Your task to perform on an android device: uninstall "DoorDash - Dasher" Image 0: 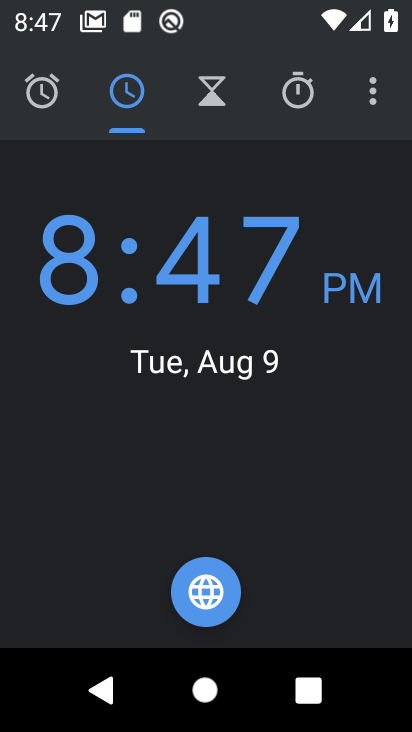
Step 0: press home button
Your task to perform on an android device: uninstall "DoorDash - Dasher" Image 1: 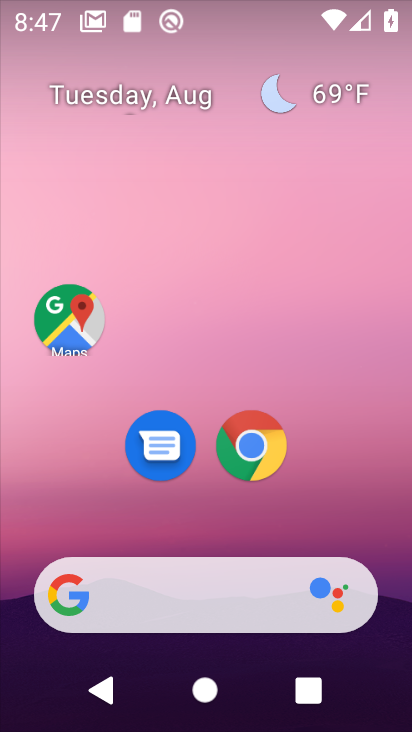
Step 1: drag from (183, 527) to (198, 23)
Your task to perform on an android device: uninstall "DoorDash - Dasher" Image 2: 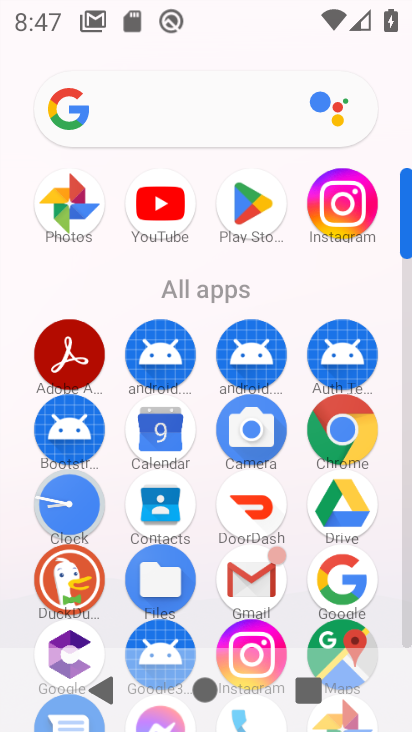
Step 2: drag from (117, 543) to (125, 113)
Your task to perform on an android device: uninstall "DoorDash - Dasher" Image 3: 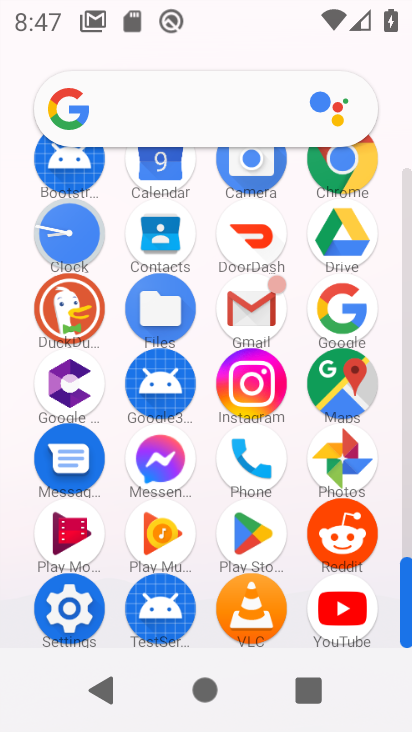
Step 3: click (254, 241)
Your task to perform on an android device: uninstall "DoorDash - Dasher" Image 4: 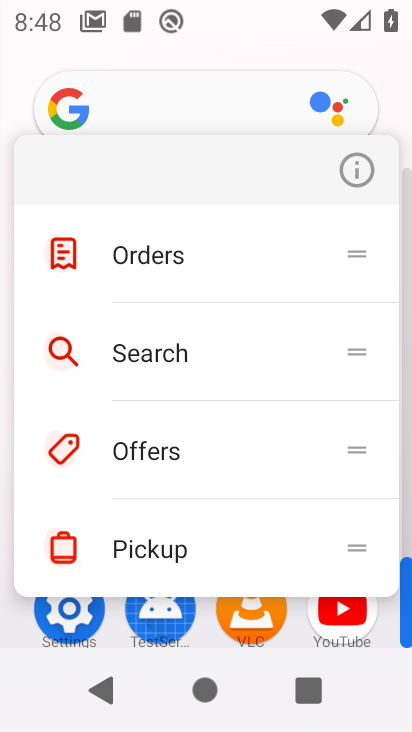
Step 4: click (351, 172)
Your task to perform on an android device: uninstall "DoorDash - Dasher" Image 5: 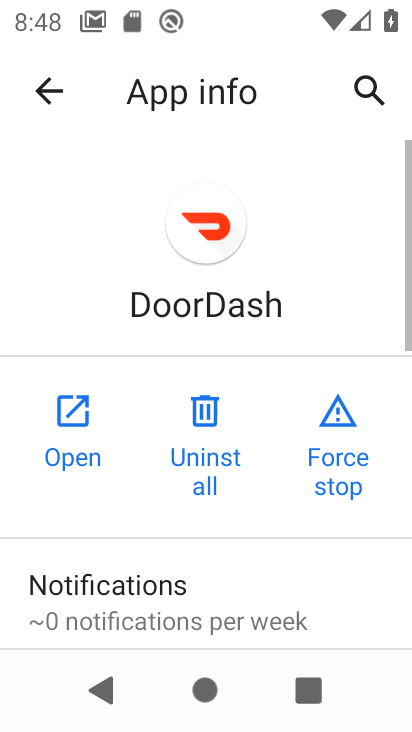
Step 5: click (191, 421)
Your task to perform on an android device: uninstall "DoorDash - Dasher" Image 6: 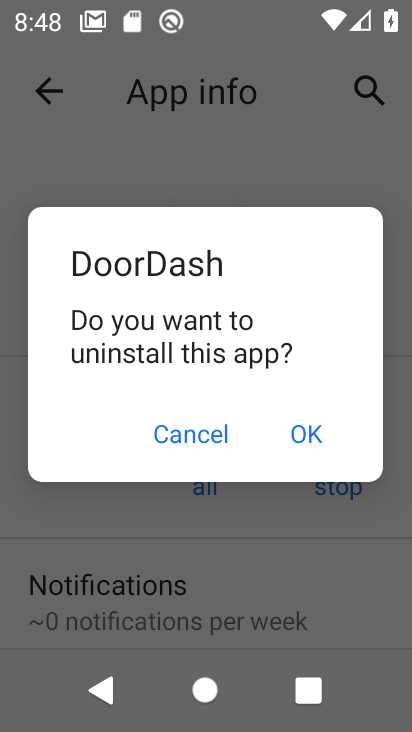
Step 6: click (306, 425)
Your task to perform on an android device: uninstall "DoorDash - Dasher" Image 7: 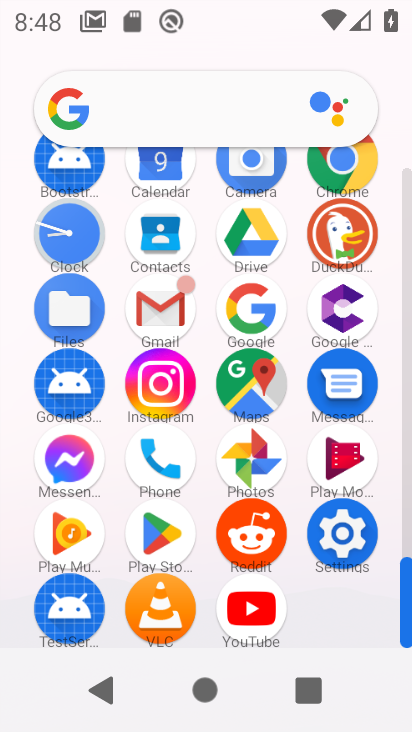
Step 7: task complete